Your task to perform on an android device: open sync settings in chrome Image 0: 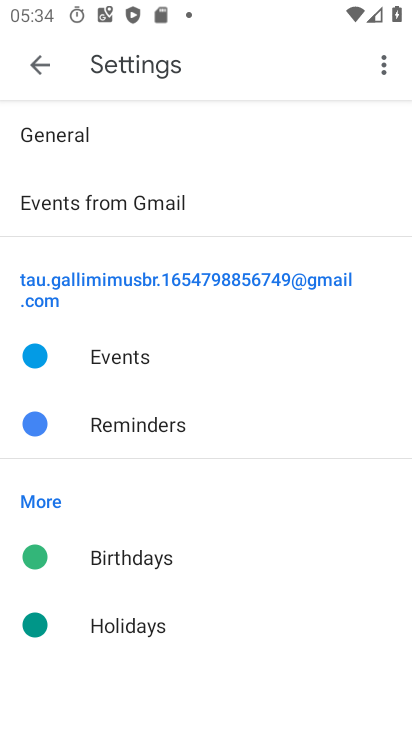
Step 0: press home button
Your task to perform on an android device: open sync settings in chrome Image 1: 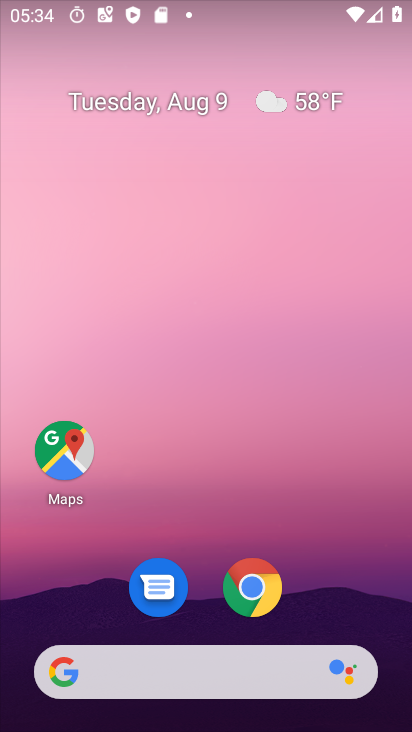
Step 1: click (265, 602)
Your task to perform on an android device: open sync settings in chrome Image 2: 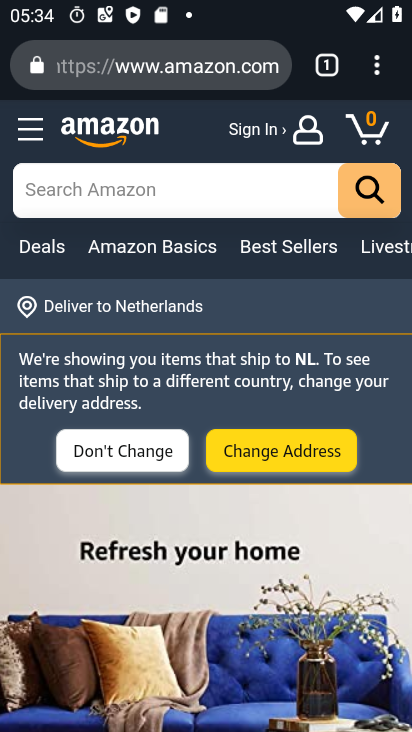
Step 2: drag from (381, 65) to (231, 627)
Your task to perform on an android device: open sync settings in chrome Image 3: 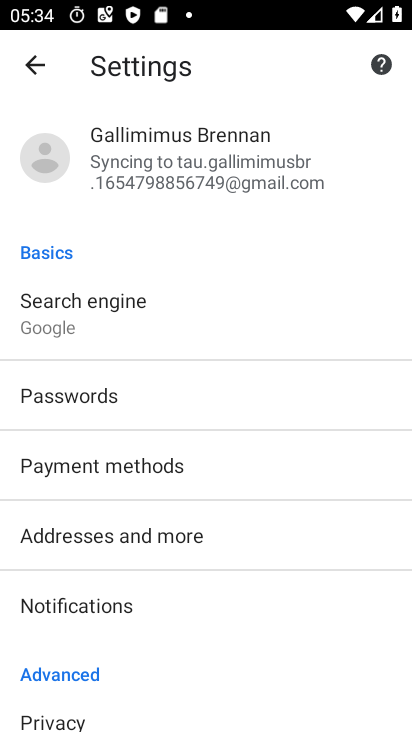
Step 3: drag from (182, 611) to (231, 156)
Your task to perform on an android device: open sync settings in chrome Image 4: 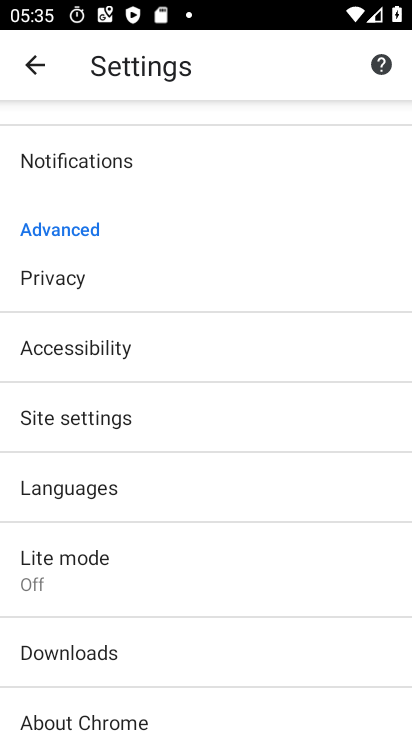
Step 4: drag from (230, 256) to (169, 695)
Your task to perform on an android device: open sync settings in chrome Image 5: 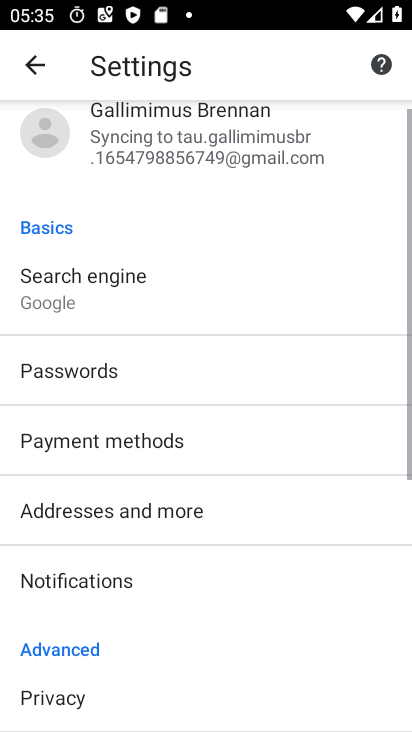
Step 5: click (161, 149)
Your task to perform on an android device: open sync settings in chrome Image 6: 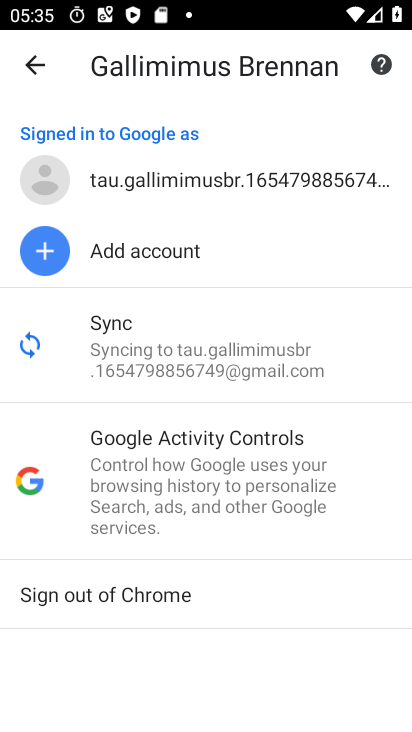
Step 6: click (182, 363)
Your task to perform on an android device: open sync settings in chrome Image 7: 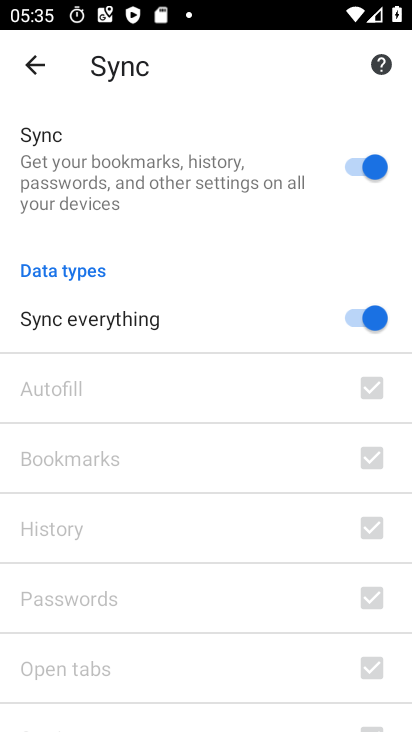
Step 7: task complete